Your task to perform on an android device: open a bookmark in the chrome app Image 0: 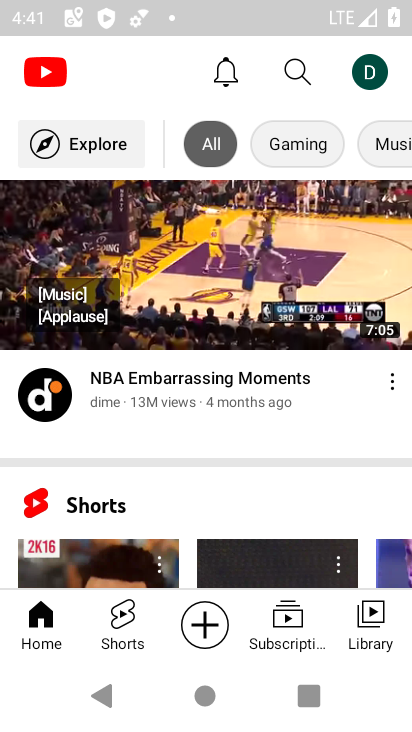
Step 0: press home button
Your task to perform on an android device: open a bookmark in the chrome app Image 1: 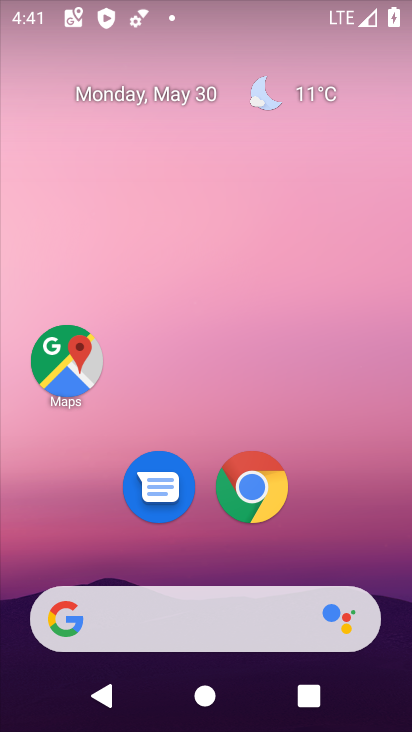
Step 1: click (255, 487)
Your task to perform on an android device: open a bookmark in the chrome app Image 2: 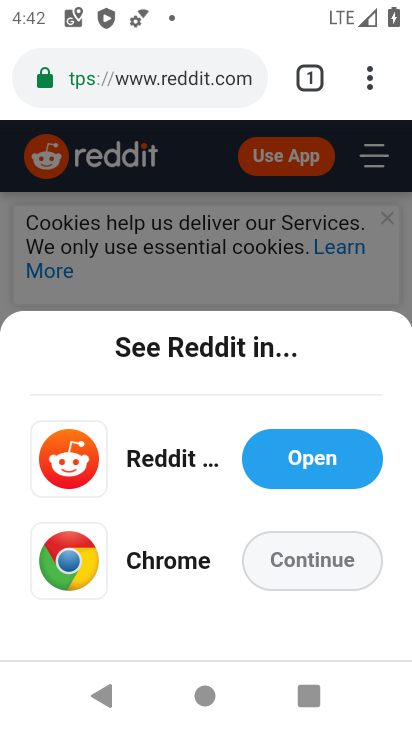
Step 2: click (367, 86)
Your task to perform on an android device: open a bookmark in the chrome app Image 3: 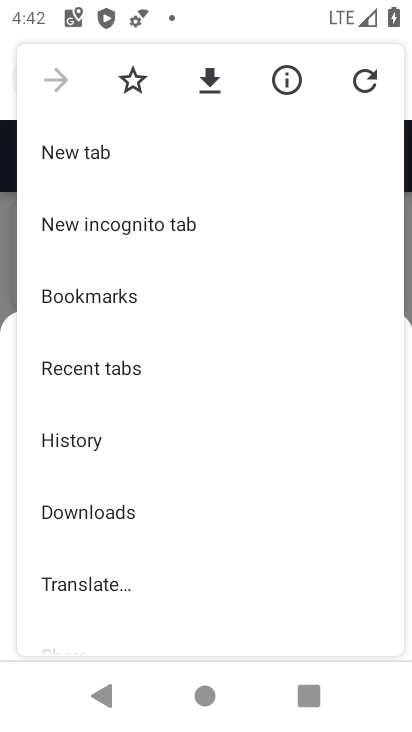
Step 3: click (85, 295)
Your task to perform on an android device: open a bookmark in the chrome app Image 4: 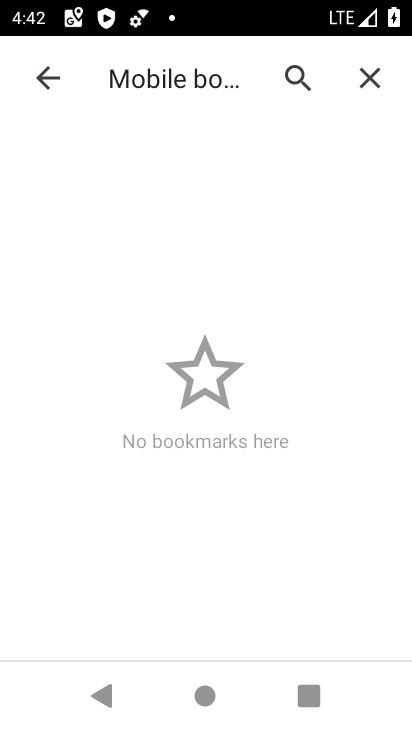
Step 4: task complete